Your task to perform on an android device: turn on javascript in the chrome app Image 0: 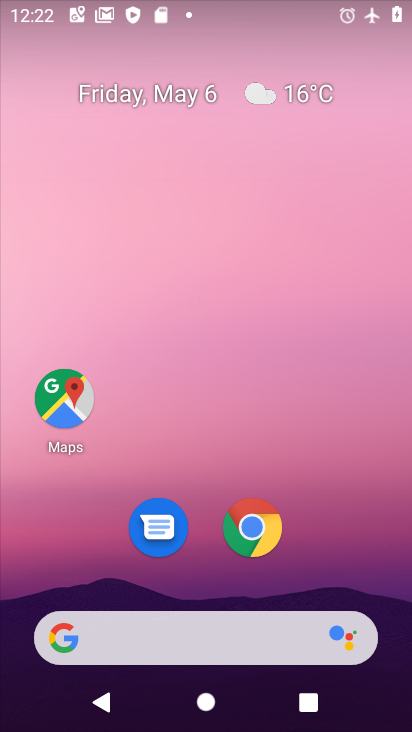
Step 0: click (255, 529)
Your task to perform on an android device: turn on javascript in the chrome app Image 1: 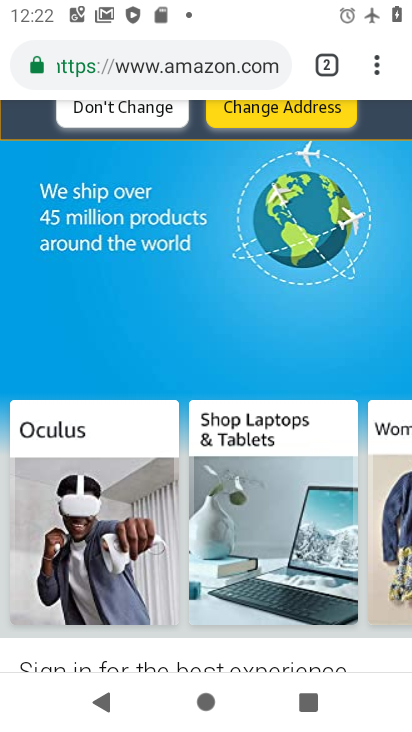
Step 1: click (377, 65)
Your task to perform on an android device: turn on javascript in the chrome app Image 2: 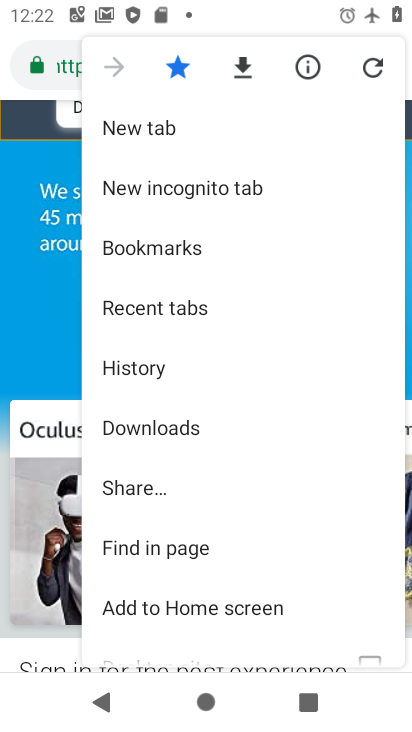
Step 2: drag from (201, 603) to (156, 201)
Your task to perform on an android device: turn on javascript in the chrome app Image 3: 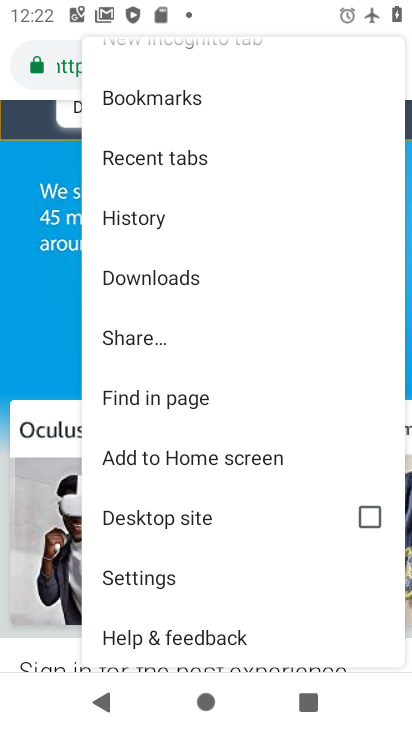
Step 3: click (140, 578)
Your task to perform on an android device: turn on javascript in the chrome app Image 4: 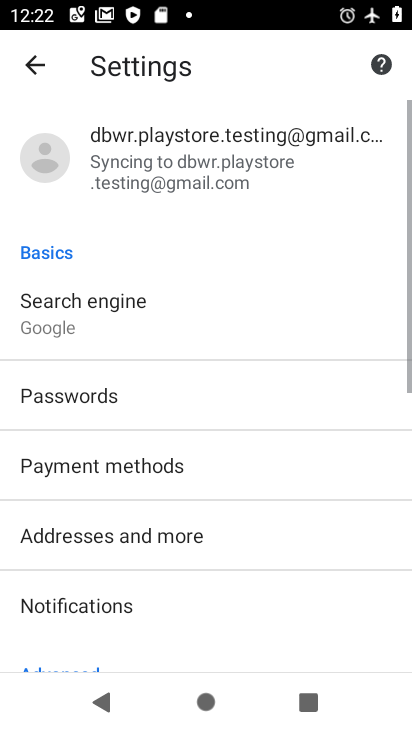
Step 4: drag from (140, 578) to (151, 205)
Your task to perform on an android device: turn on javascript in the chrome app Image 5: 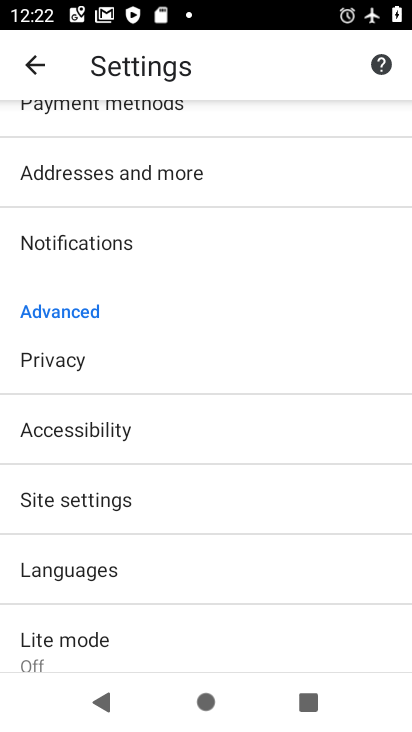
Step 5: click (71, 496)
Your task to perform on an android device: turn on javascript in the chrome app Image 6: 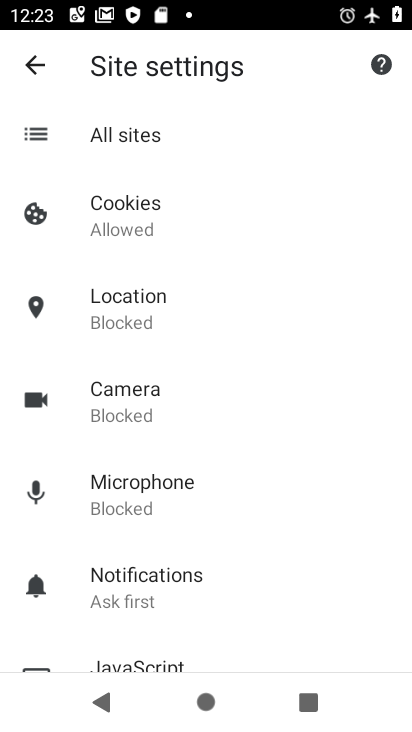
Step 6: click (186, 657)
Your task to perform on an android device: turn on javascript in the chrome app Image 7: 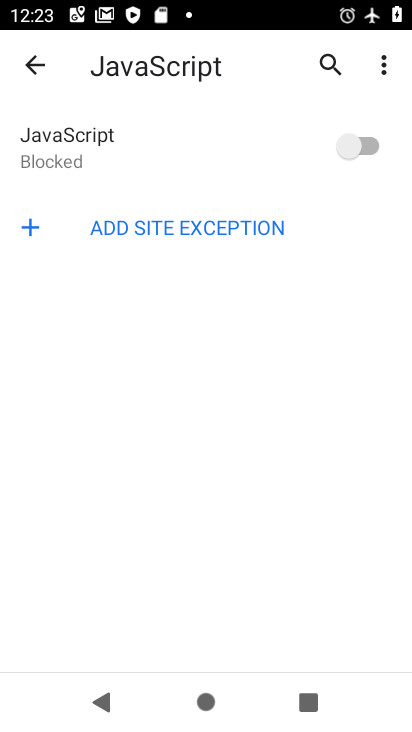
Step 7: click (360, 154)
Your task to perform on an android device: turn on javascript in the chrome app Image 8: 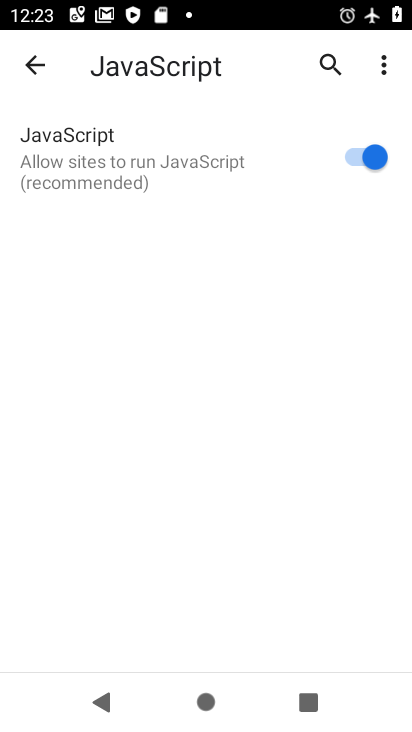
Step 8: task complete